Your task to perform on an android device: Open the Play Movies app and select the watchlist tab. Image 0: 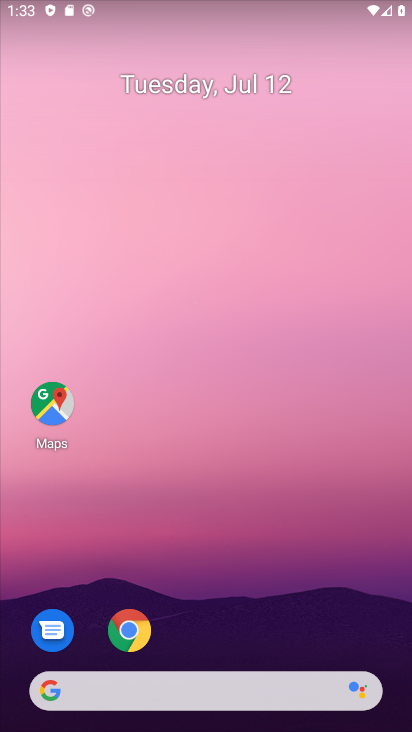
Step 0: drag from (392, 681) to (289, 58)
Your task to perform on an android device: Open the Play Movies app and select the watchlist tab. Image 1: 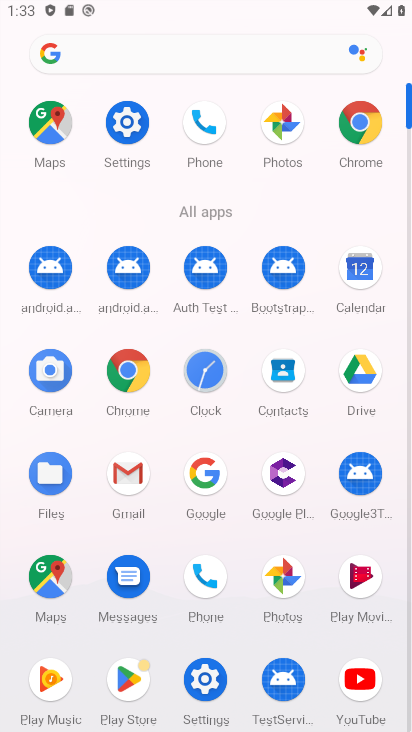
Step 1: click (360, 580)
Your task to perform on an android device: Open the Play Movies app and select the watchlist tab. Image 2: 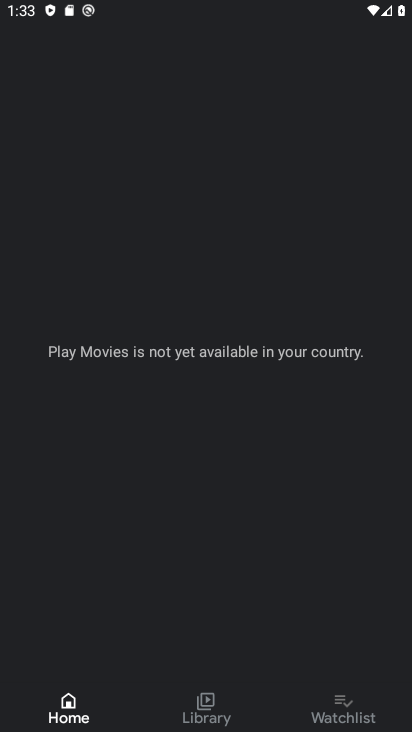
Step 2: click (344, 696)
Your task to perform on an android device: Open the Play Movies app and select the watchlist tab. Image 3: 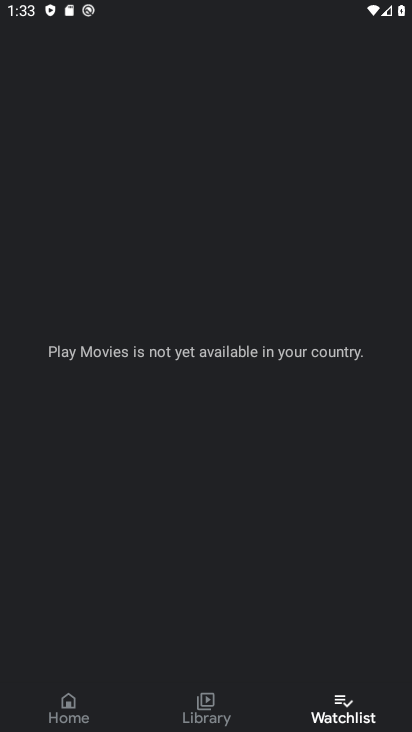
Step 3: task complete